Your task to perform on an android device: Show me the alarms in the clock app Image 0: 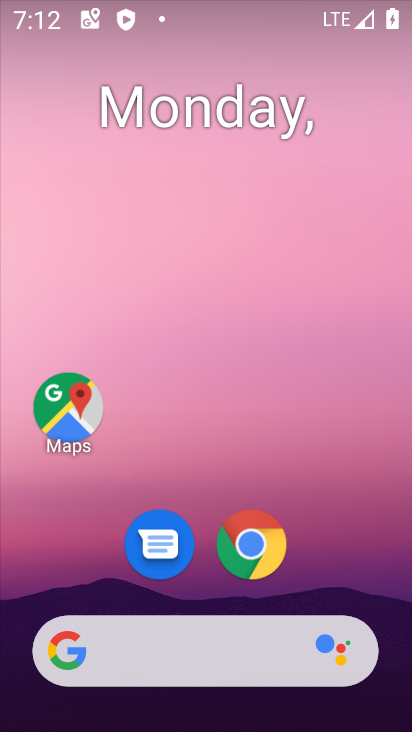
Step 0: drag from (335, 525) to (246, 17)
Your task to perform on an android device: Show me the alarms in the clock app Image 1: 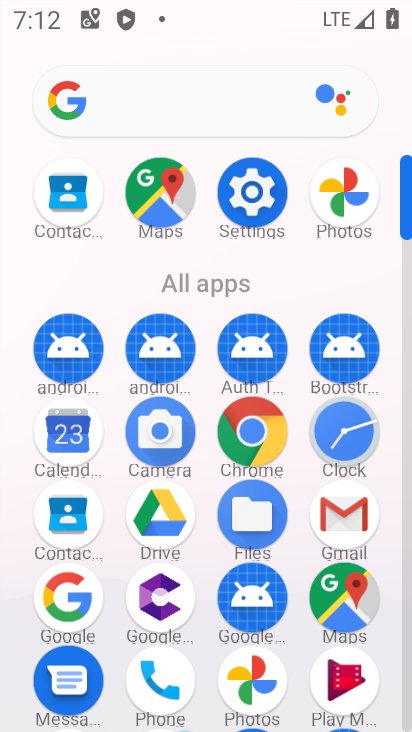
Step 1: click (334, 427)
Your task to perform on an android device: Show me the alarms in the clock app Image 2: 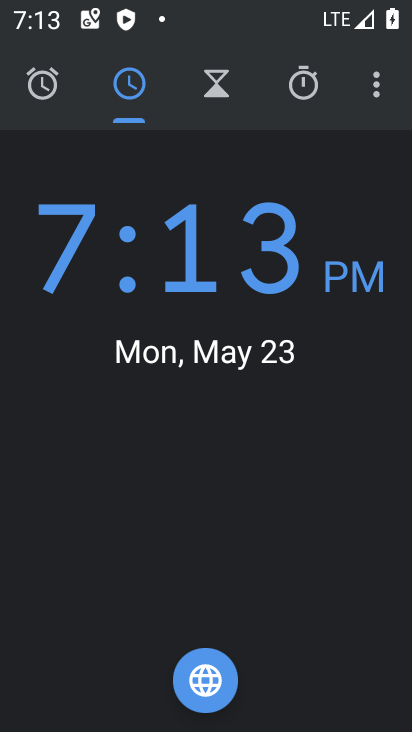
Step 2: click (44, 84)
Your task to perform on an android device: Show me the alarms in the clock app Image 3: 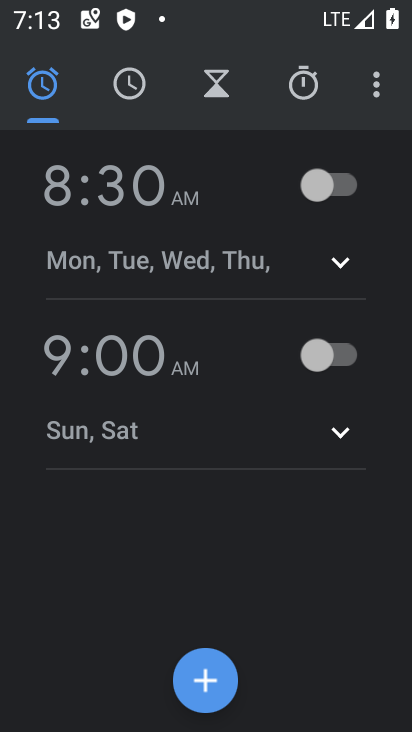
Step 3: task complete